Your task to perform on an android device: Open Chrome and go to the settings page Image 0: 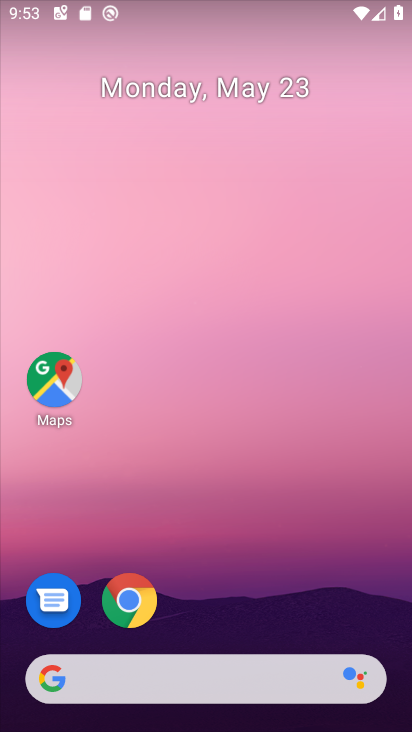
Step 0: click (121, 601)
Your task to perform on an android device: Open Chrome and go to the settings page Image 1: 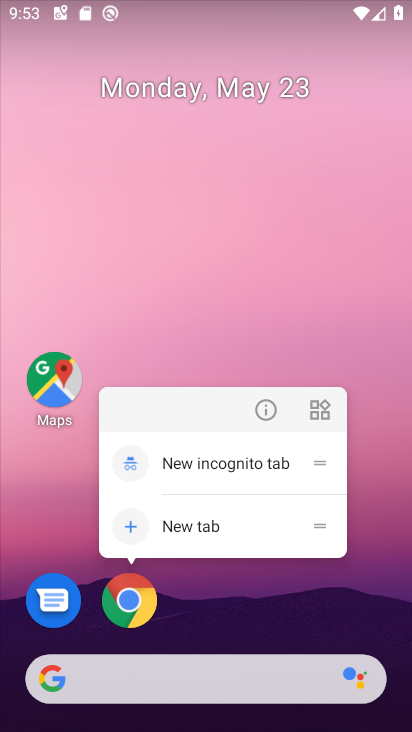
Step 1: click (123, 593)
Your task to perform on an android device: Open Chrome and go to the settings page Image 2: 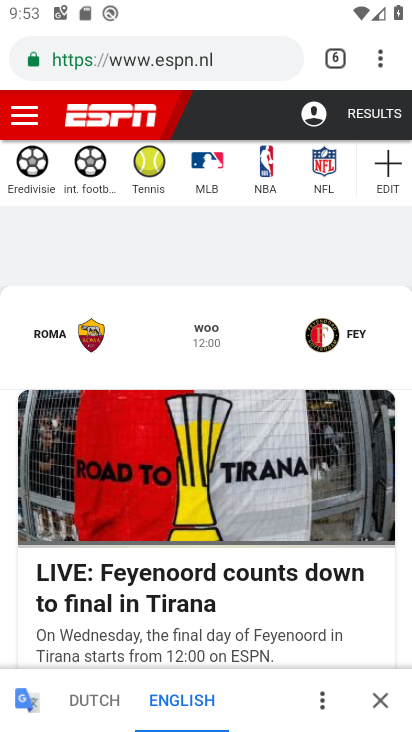
Step 2: click (381, 63)
Your task to perform on an android device: Open Chrome and go to the settings page Image 3: 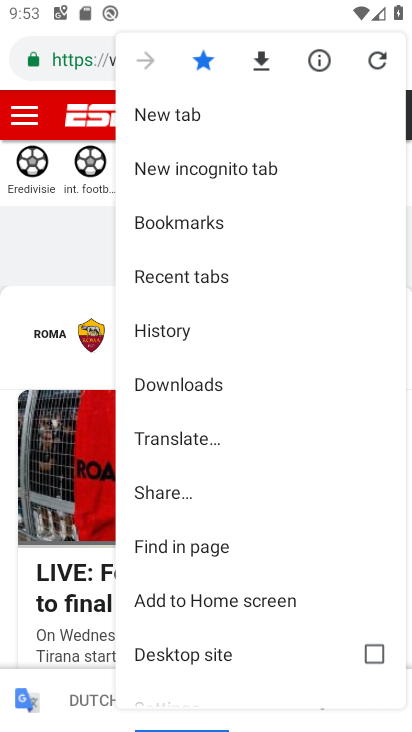
Step 3: drag from (235, 627) to (257, 196)
Your task to perform on an android device: Open Chrome and go to the settings page Image 4: 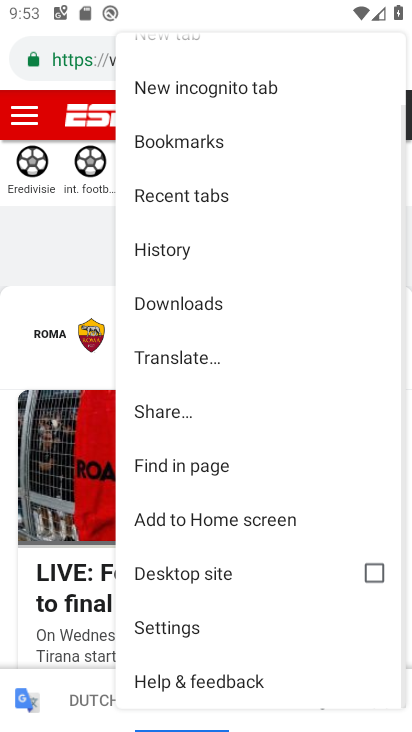
Step 4: click (159, 620)
Your task to perform on an android device: Open Chrome and go to the settings page Image 5: 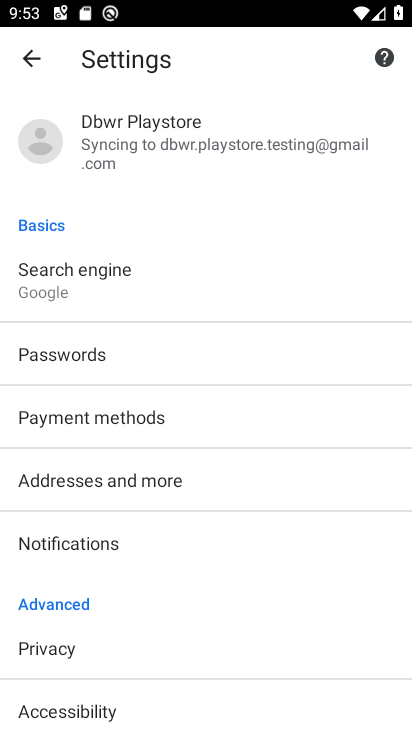
Step 5: task complete